Your task to perform on an android device: turn off sleep mode Image 0: 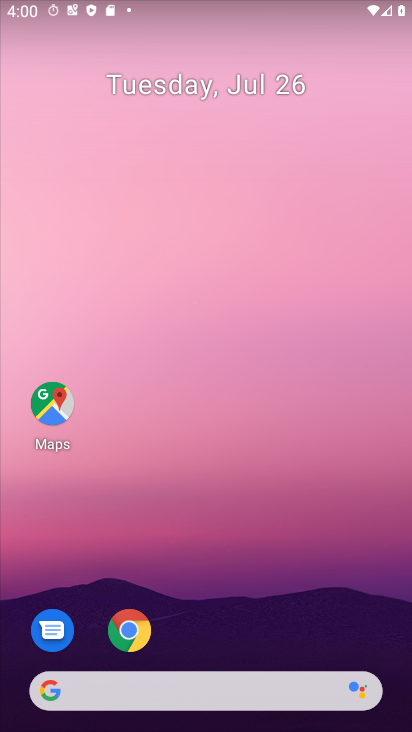
Step 0: drag from (231, 648) to (137, 91)
Your task to perform on an android device: turn off sleep mode Image 1: 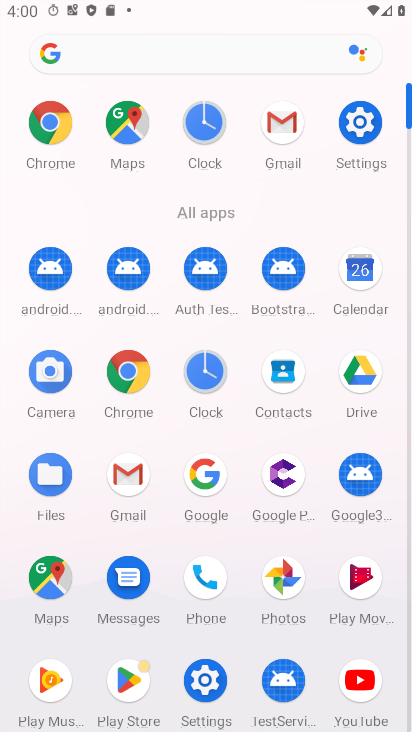
Step 1: click (355, 126)
Your task to perform on an android device: turn off sleep mode Image 2: 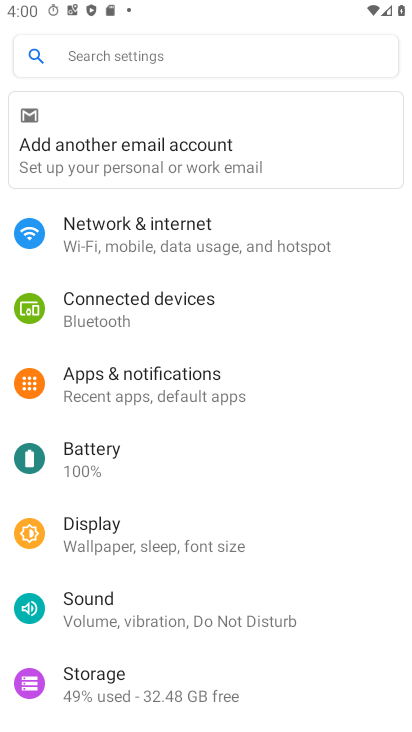
Step 2: click (186, 535)
Your task to perform on an android device: turn off sleep mode Image 3: 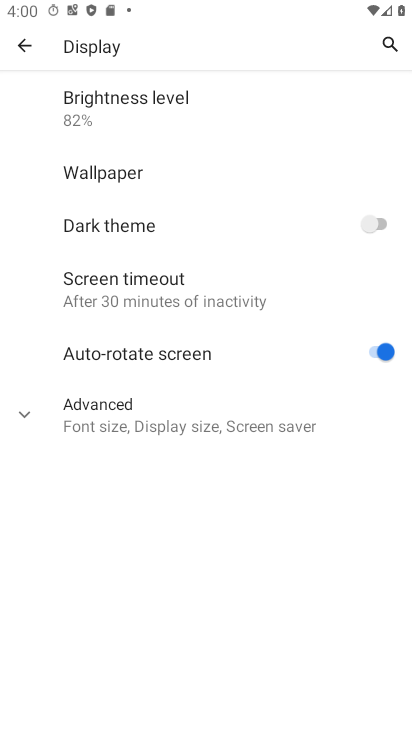
Step 3: click (302, 425)
Your task to perform on an android device: turn off sleep mode Image 4: 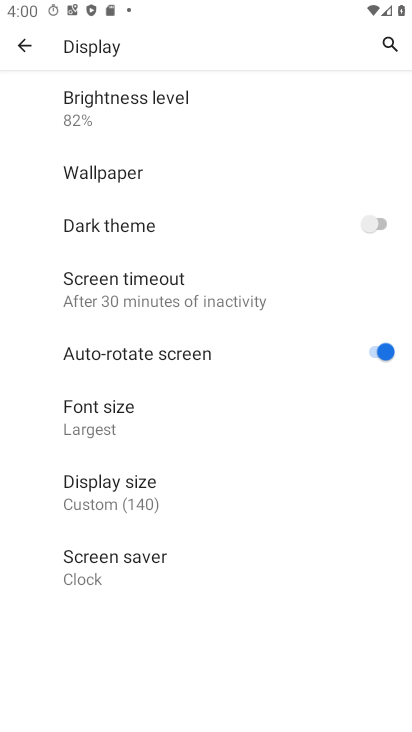
Step 4: task complete